Your task to perform on an android device: toggle javascript in the chrome app Image 0: 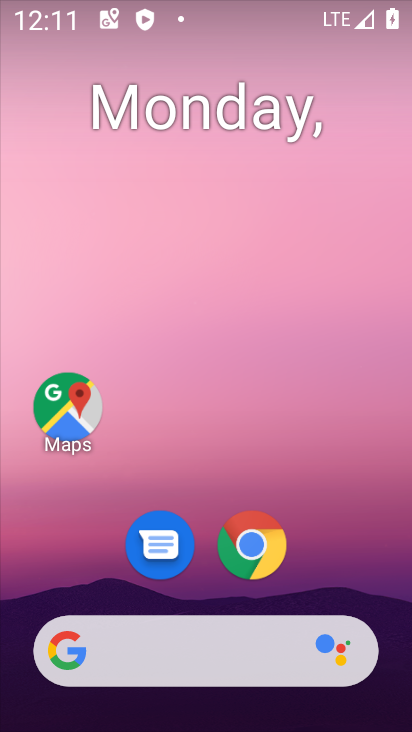
Step 0: drag from (358, 583) to (341, 156)
Your task to perform on an android device: toggle javascript in the chrome app Image 1: 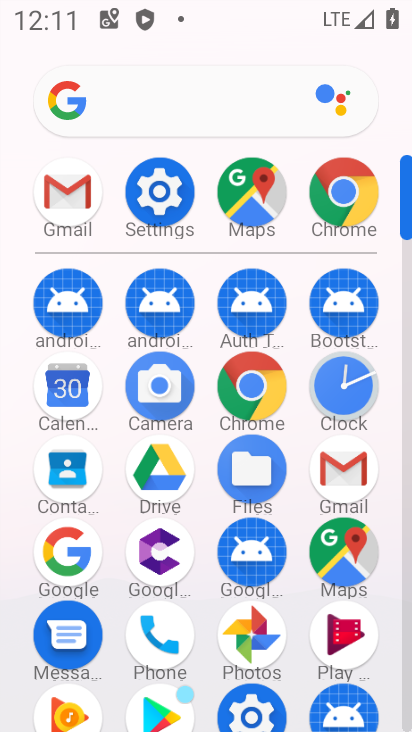
Step 1: click (265, 394)
Your task to perform on an android device: toggle javascript in the chrome app Image 2: 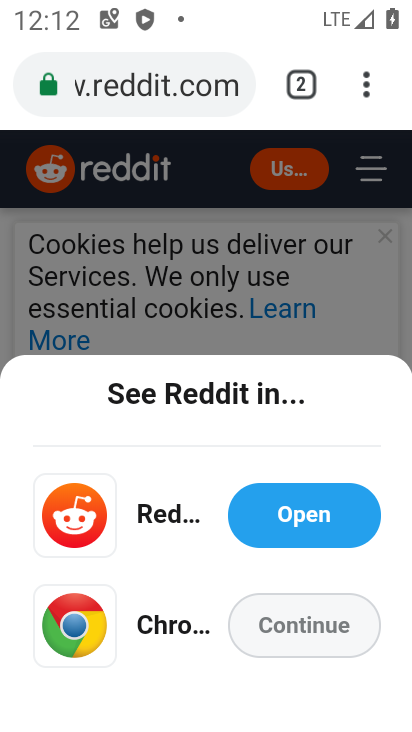
Step 2: click (368, 92)
Your task to perform on an android device: toggle javascript in the chrome app Image 3: 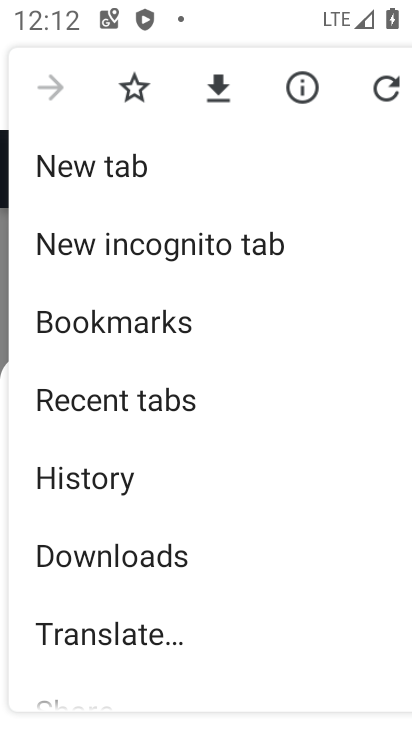
Step 3: drag from (312, 542) to (319, 401)
Your task to perform on an android device: toggle javascript in the chrome app Image 4: 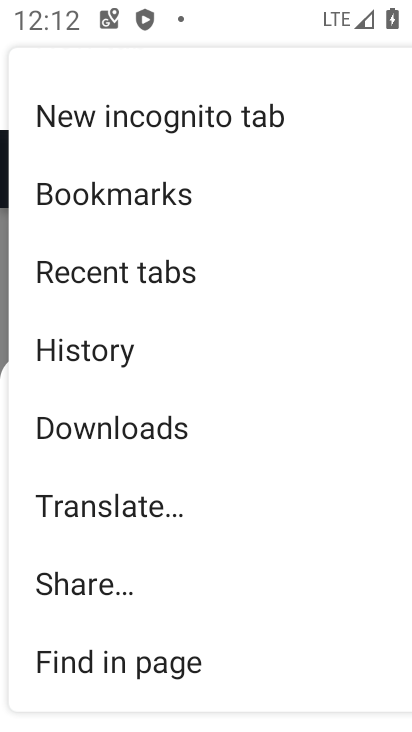
Step 4: drag from (281, 614) to (295, 447)
Your task to perform on an android device: toggle javascript in the chrome app Image 5: 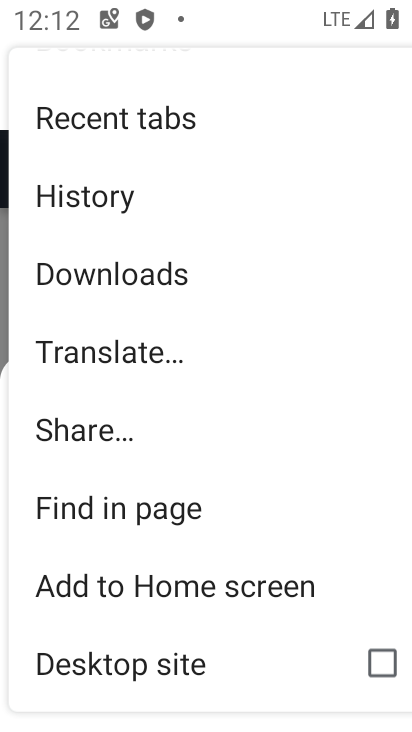
Step 5: drag from (275, 634) to (279, 463)
Your task to perform on an android device: toggle javascript in the chrome app Image 6: 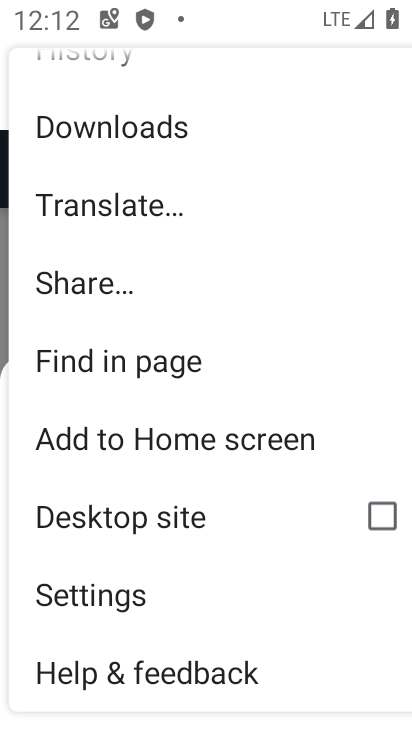
Step 6: click (144, 601)
Your task to perform on an android device: toggle javascript in the chrome app Image 7: 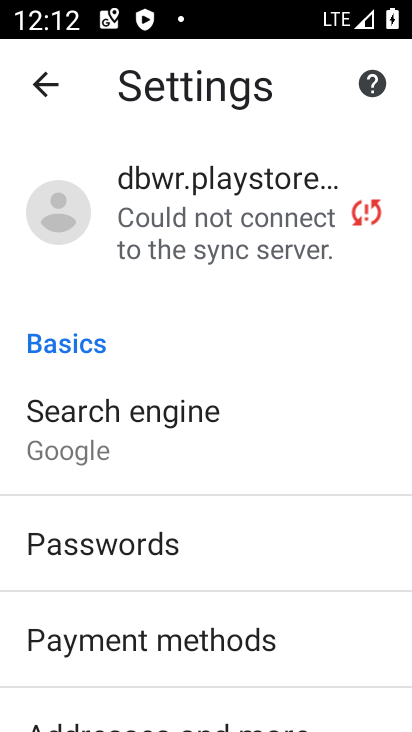
Step 7: drag from (322, 583) to (330, 499)
Your task to perform on an android device: toggle javascript in the chrome app Image 8: 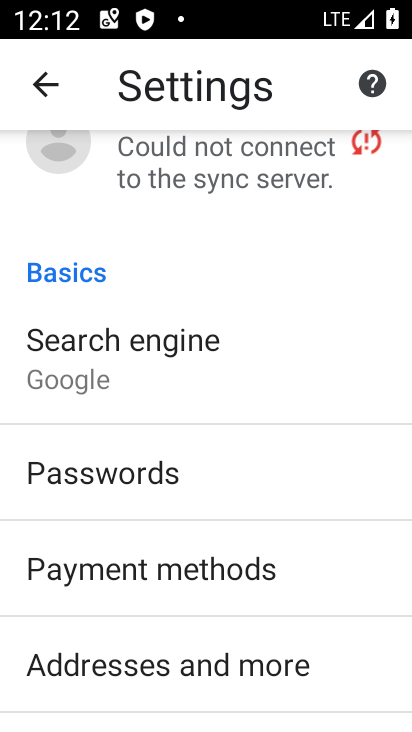
Step 8: drag from (352, 628) to (351, 552)
Your task to perform on an android device: toggle javascript in the chrome app Image 9: 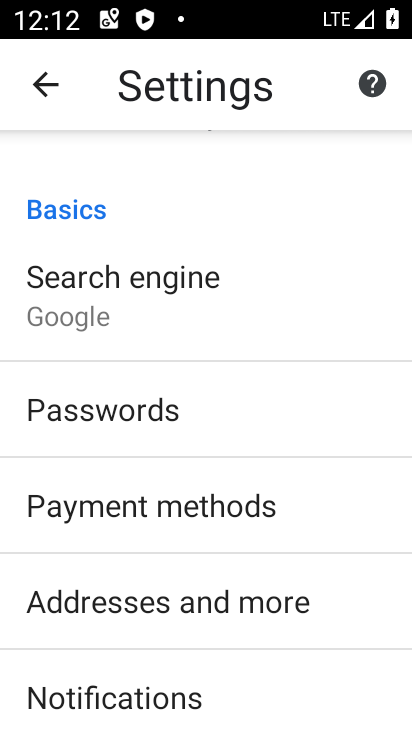
Step 9: drag from (354, 651) to (351, 542)
Your task to perform on an android device: toggle javascript in the chrome app Image 10: 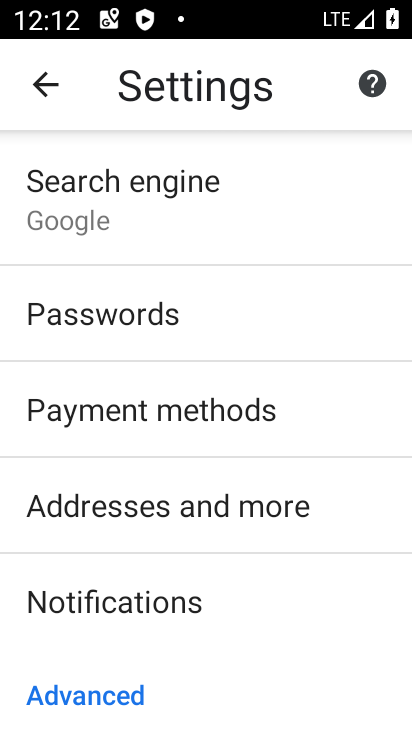
Step 10: drag from (343, 645) to (347, 532)
Your task to perform on an android device: toggle javascript in the chrome app Image 11: 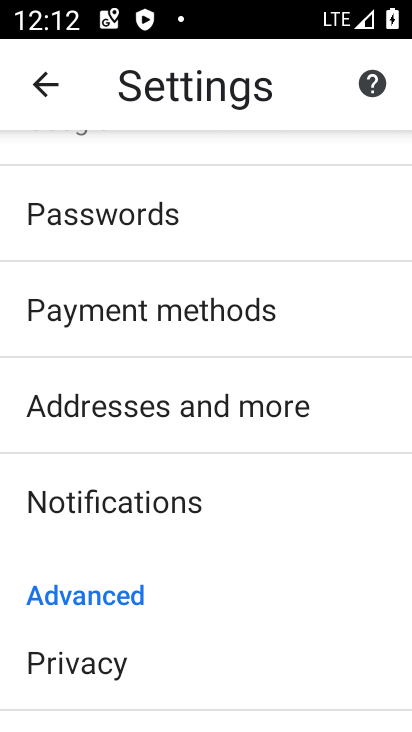
Step 11: drag from (324, 659) to (323, 548)
Your task to perform on an android device: toggle javascript in the chrome app Image 12: 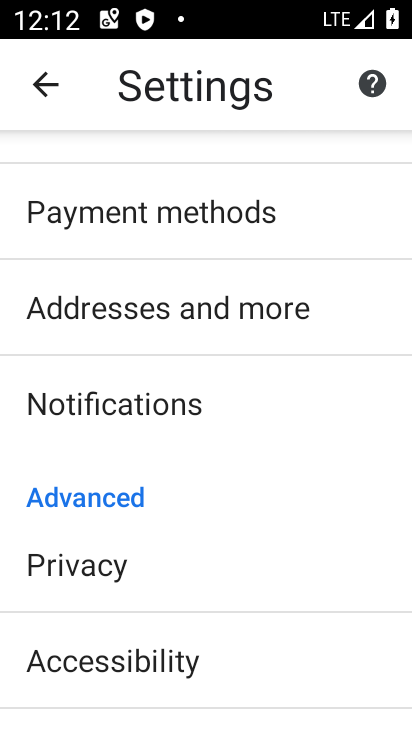
Step 12: drag from (318, 690) to (315, 497)
Your task to perform on an android device: toggle javascript in the chrome app Image 13: 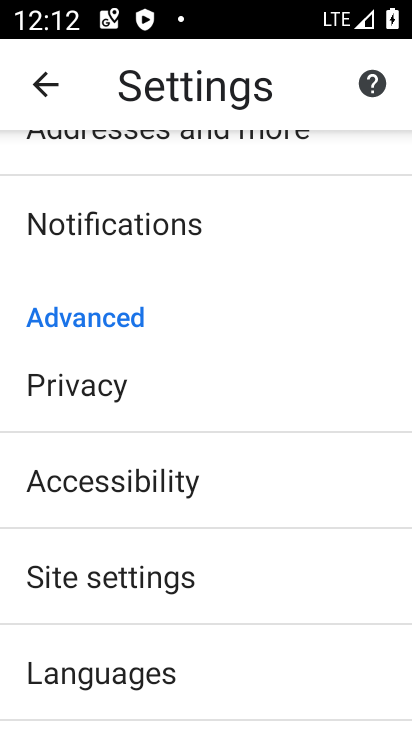
Step 13: drag from (320, 633) to (318, 499)
Your task to perform on an android device: toggle javascript in the chrome app Image 14: 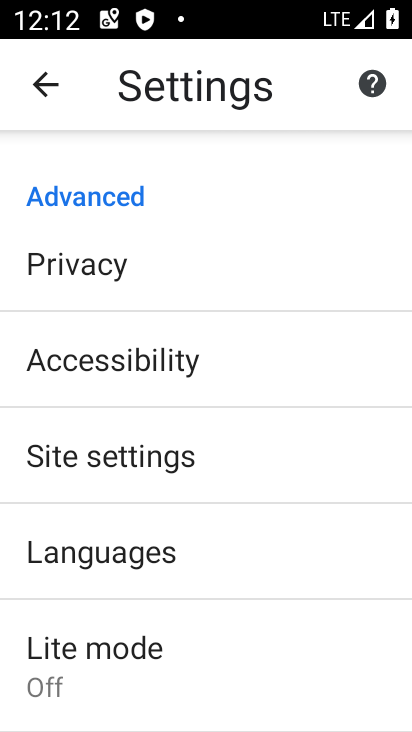
Step 14: click (232, 474)
Your task to perform on an android device: toggle javascript in the chrome app Image 15: 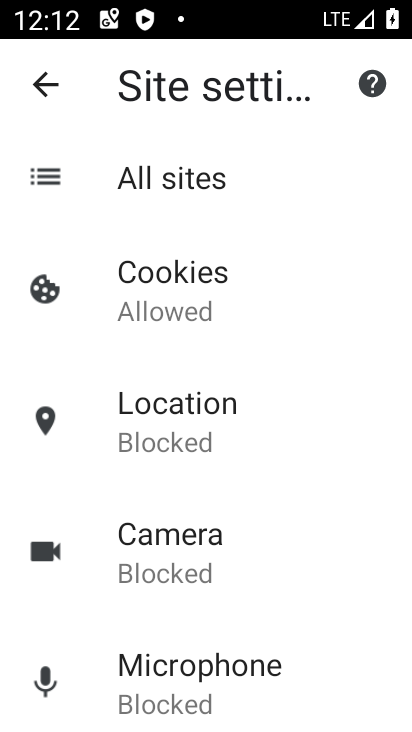
Step 15: drag from (295, 579) to (309, 508)
Your task to perform on an android device: toggle javascript in the chrome app Image 16: 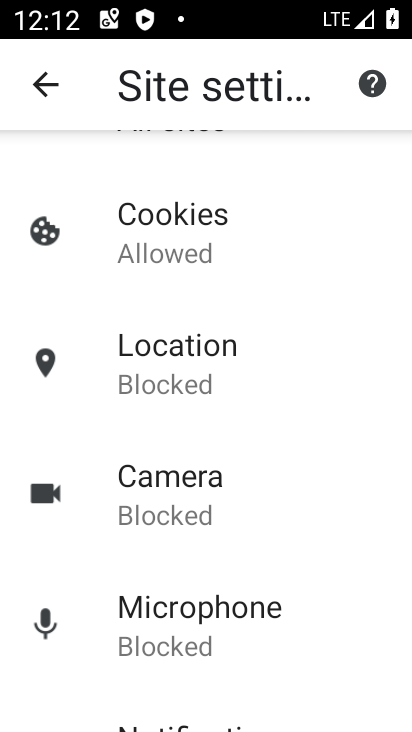
Step 16: drag from (312, 619) to (321, 479)
Your task to perform on an android device: toggle javascript in the chrome app Image 17: 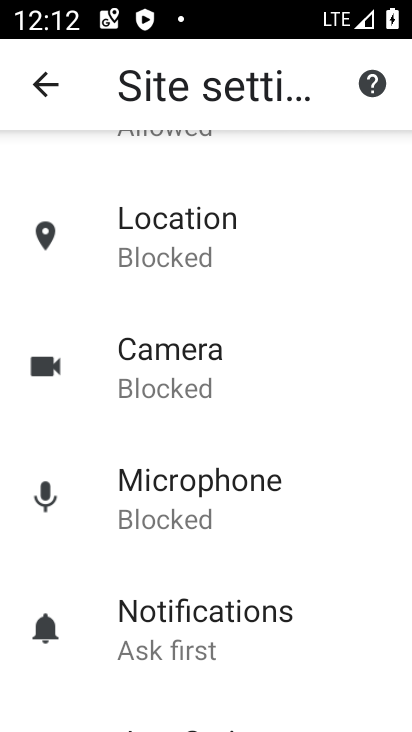
Step 17: drag from (325, 621) to (329, 490)
Your task to perform on an android device: toggle javascript in the chrome app Image 18: 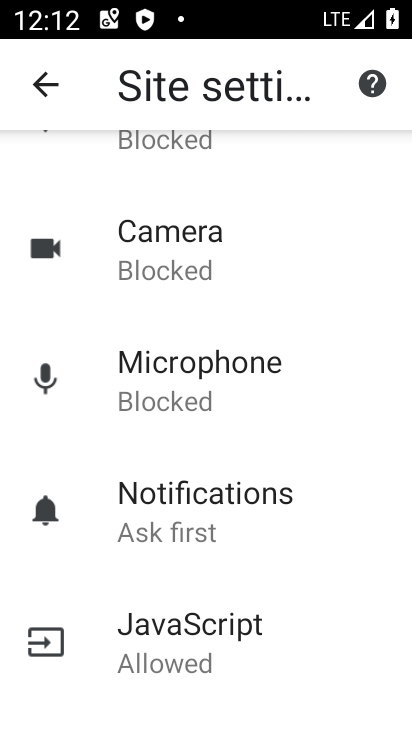
Step 18: drag from (334, 617) to (341, 470)
Your task to perform on an android device: toggle javascript in the chrome app Image 19: 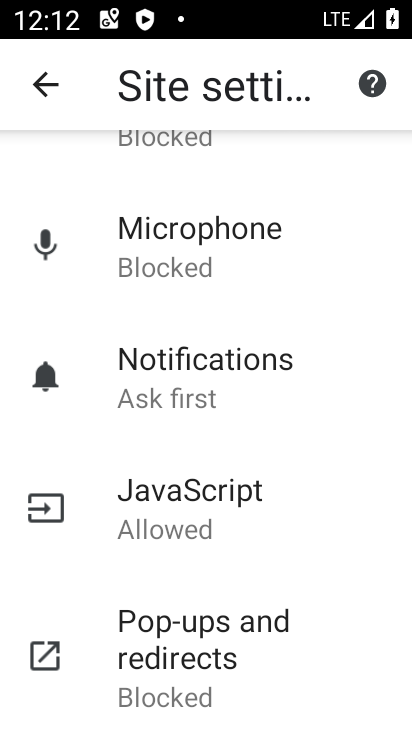
Step 19: click (263, 540)
Your task to perform on an android device: toggle javascript in the chrome app Image 20: 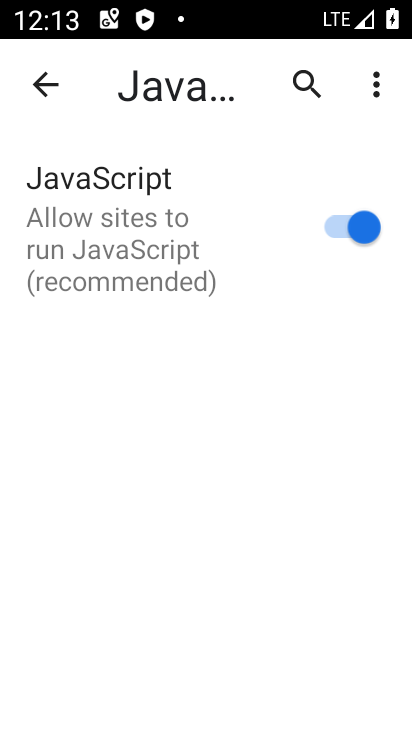
Step 20: click (350, 233)
Your task to perform on an android device: toggle javascript in the chrome app Image 21: 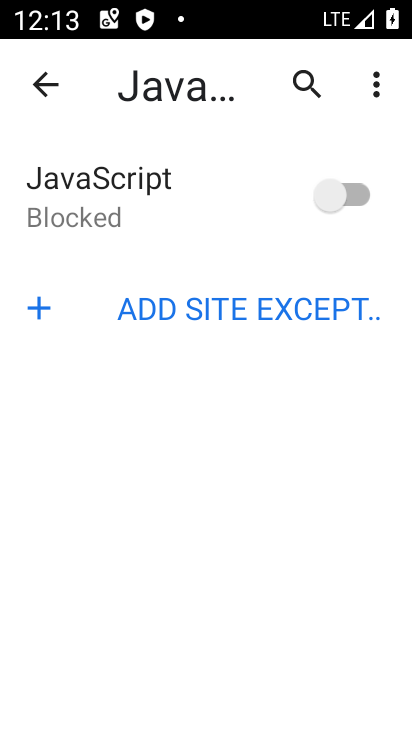
Step 21: task complete